Your task to perform on an android device: change notification settings in the gmail app Image 0: 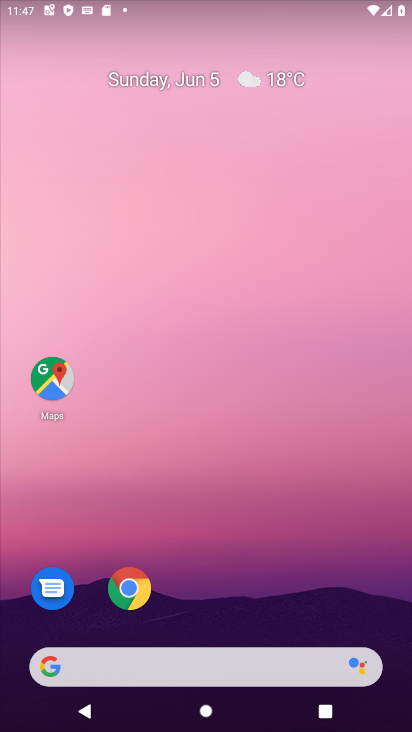
Step 0: drag from (260, 612) to (213, 226)
Your task to perform on an android device: change notification settings in the gmail app Image 1: 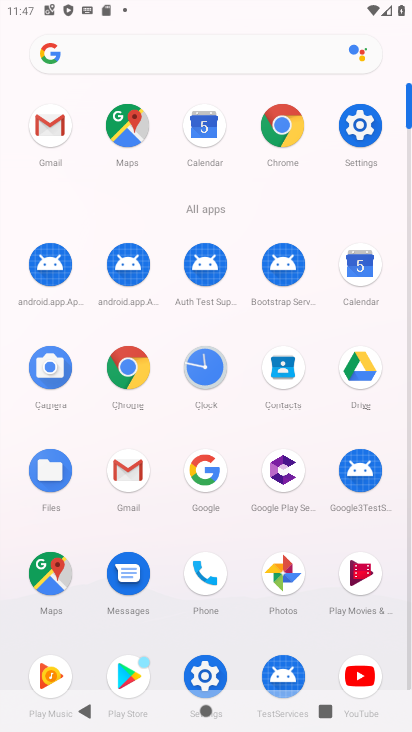
Step 1: click (57, 139)
Your task to perform on an android device: change notification settings in the gmail app Image 2: 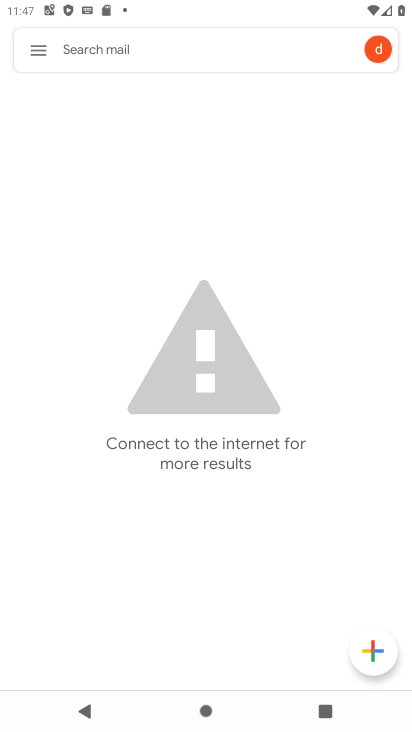
Step 2: click (40, 59)
Your task to perform on an android device: change notification settings in the gmail app Image 3: 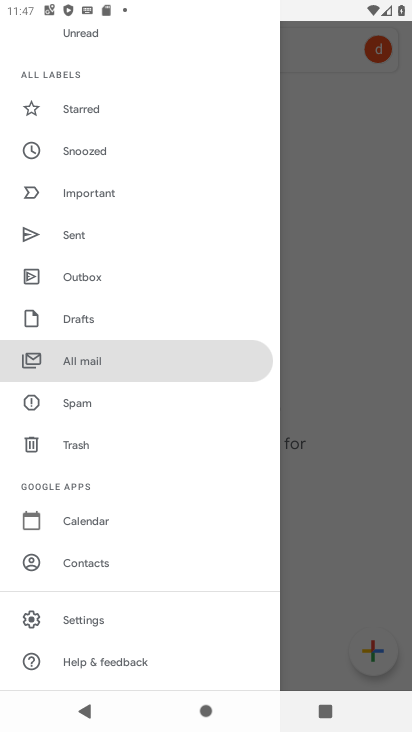
Step 3: click (66, 618)
Your task to perform on an android device: change notification settings in the gmail app Image 4: 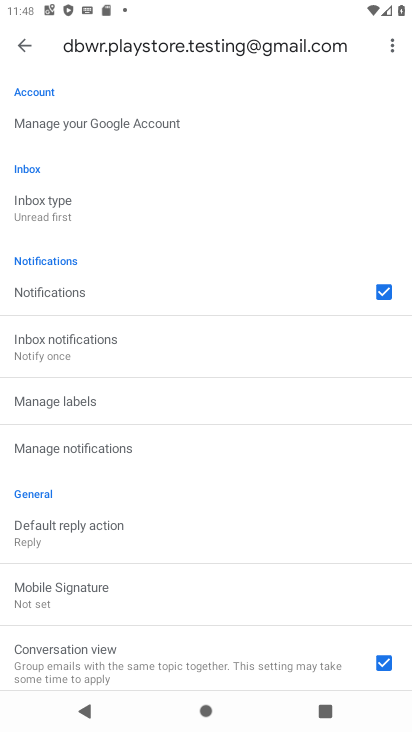
Step 4: click (159, 455)
Your task to perform on an android device: change notification settings in the gmail app Image 5: 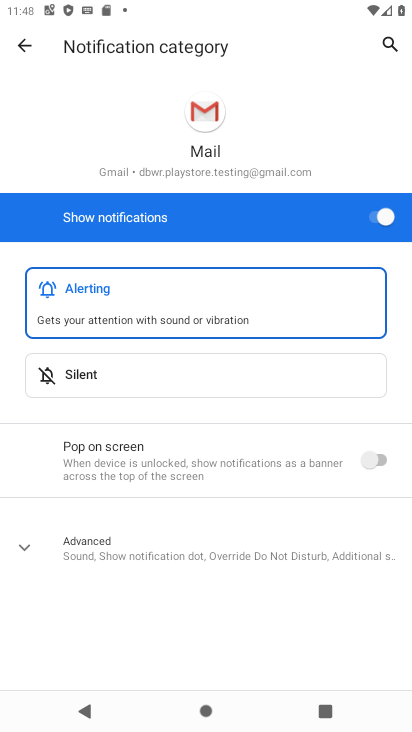
Step 5: click (198, 382)
Your task to perform on an android device: change notification settings in the gmail app Image 6: 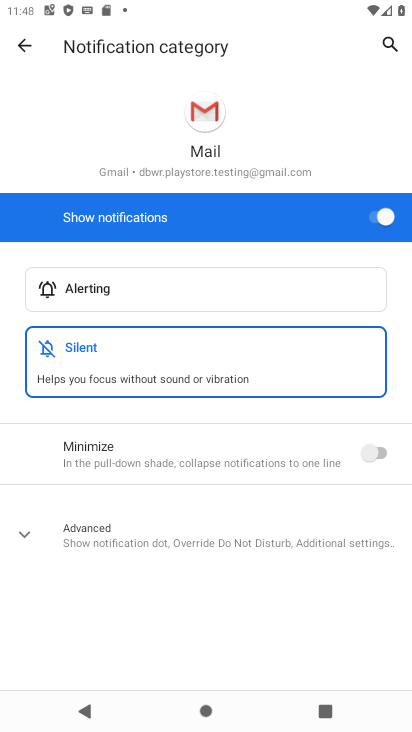
Step 6: click (372, 458)
Your task to perform on an android device: change notification settings in the gmail app Image 7: 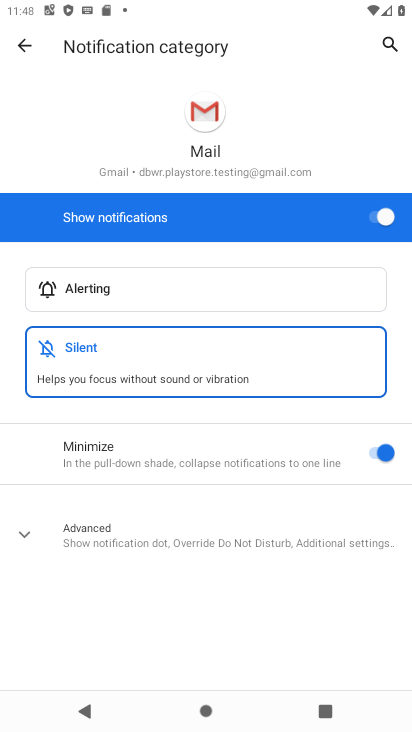
Step 7: task complete